Your task to perform on an android device: Open the Play Movies app and select the watchlist tab. Image 0: 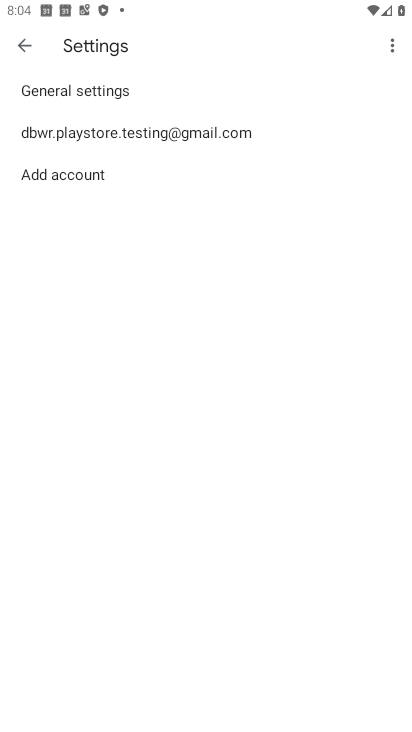
Step 0: press home button
Your task to perform on an android device: Open the Play Movies app and select the watchlist tab. Image 1: 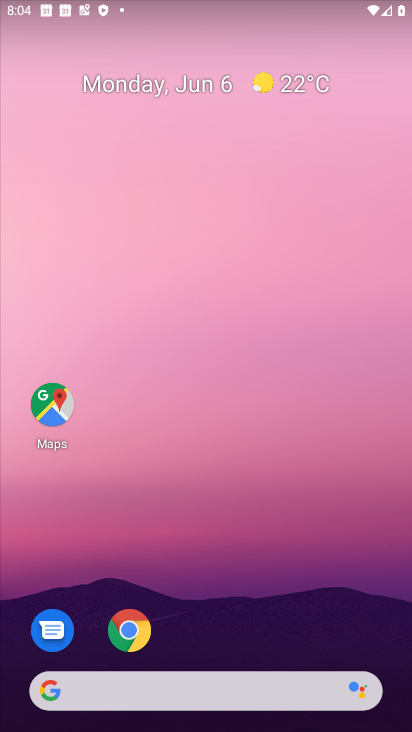
Step 1: drag from (135, 705) to (151, 221)
Your task to perform on an android device: Open the Play Movies app and select the watchlist tab. Image 2: 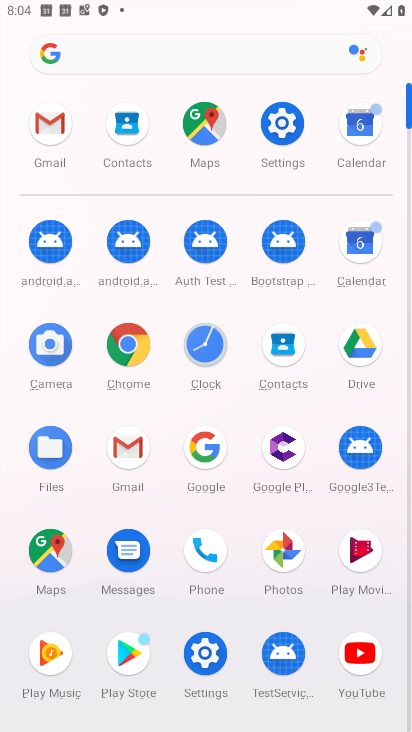
Step 2: click (355, 569)
Your task to perform on an android device: Open the Play Movies app and select the watchlist tab. Image 3: 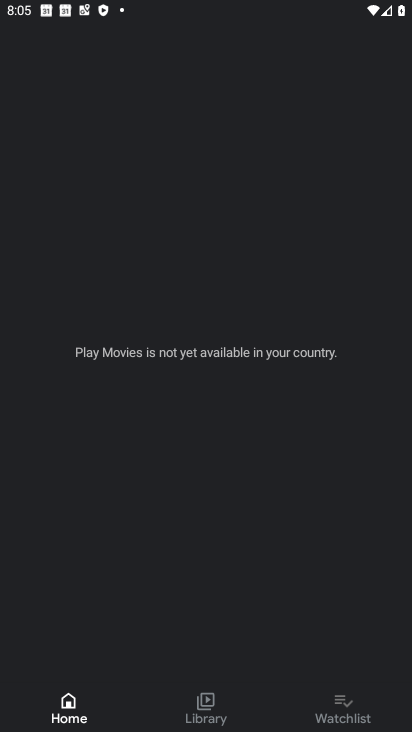
Step 3: click (333, 714)
Your task to perform on an android device: Open the Play Movies app and select the watchlist tab. Image 4: 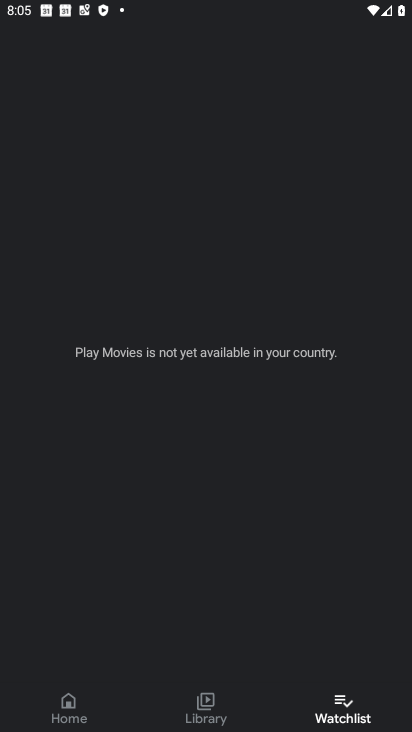
Step 4: task complete